Your task to perform on an android device: Open Maps and search for coffee Image 0: 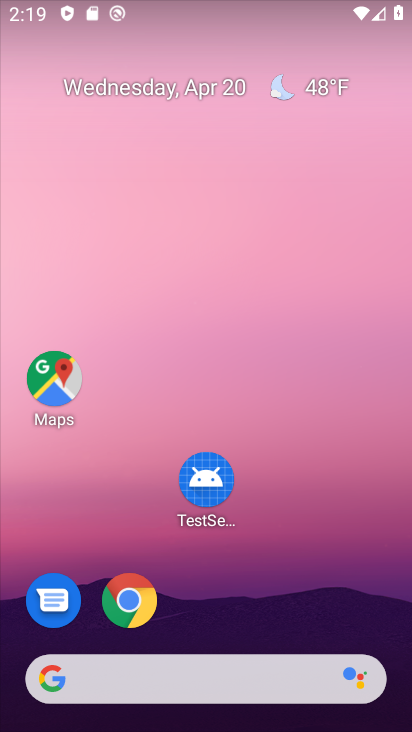
Step 0: click (56, 388)
Your task to perform on an android device: Open Maps and search for coffee Image 1: 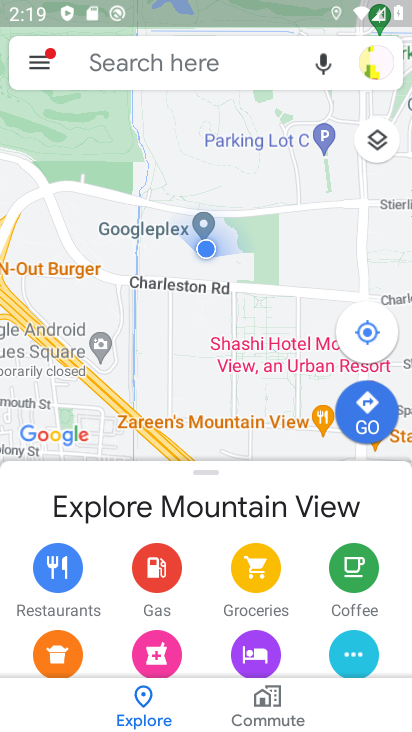
Step 1: click (220, 68)
Your task to perform on an android device: Open Maps and search for coffee Image 2: 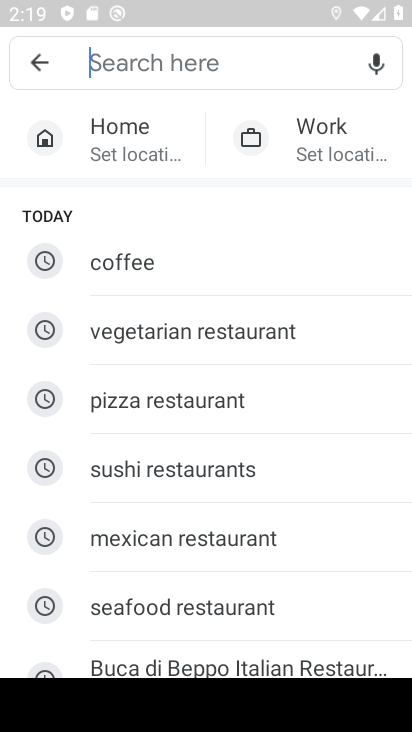
Step 2: type "coffee"
Your task to perform on an android device: Open Maps and search for coffee Image 3: 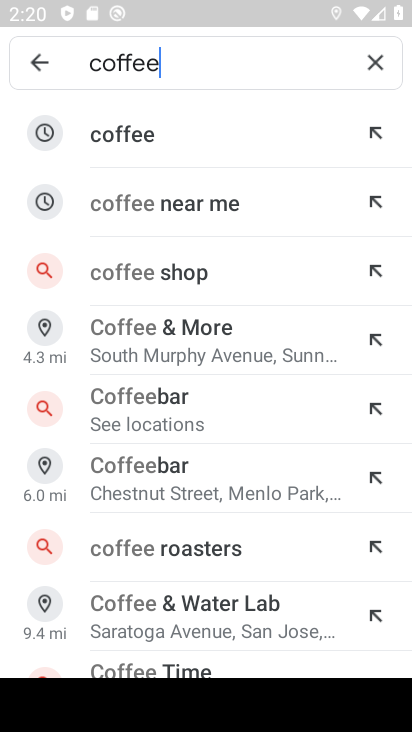
Step 3: task complete